Your task to perform on an android device: change notification settings in the gmail app Image 0: 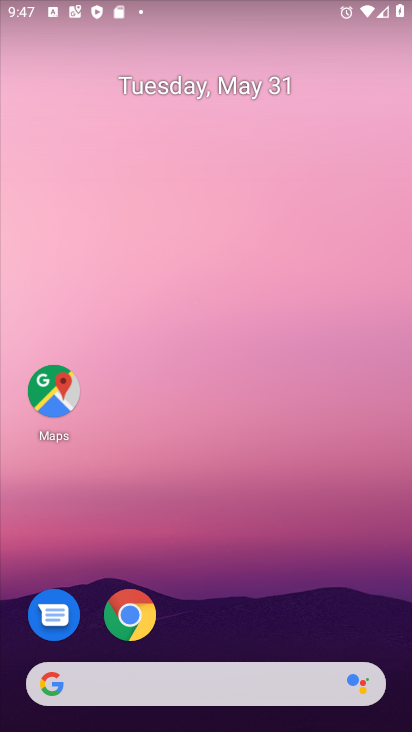
Step 0: drag from (357, 620) to (309, 62)
Your task to perform on an android device: change notification settings in the gmail app Image 1: 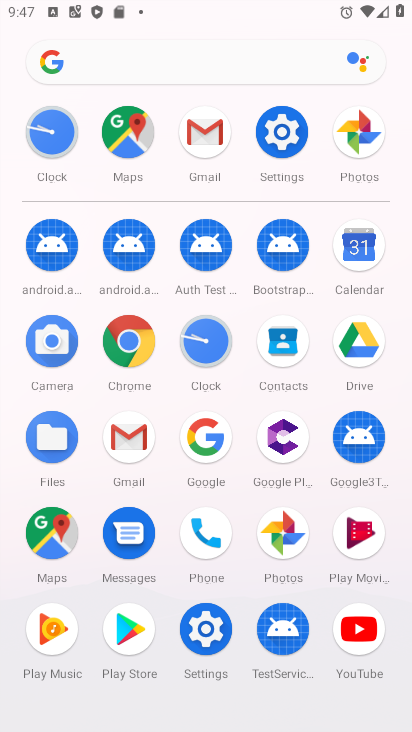
Step 1: click (126, 434)
Your task to perform on an android device: change notification settings in the gmail app Image 2: 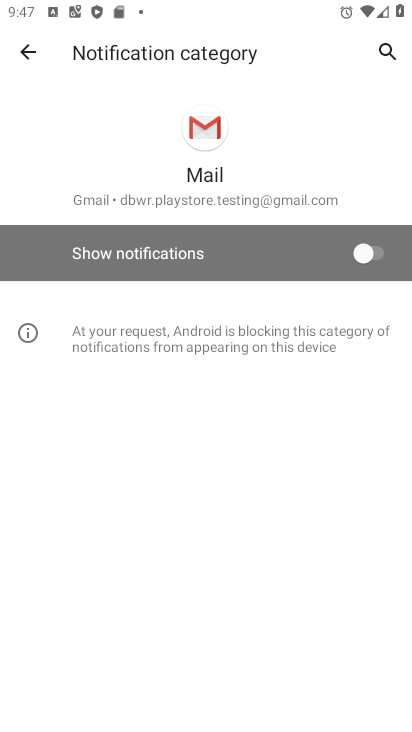
Step 2: click (377, 254)
Your task to perform on an android device: change notification settings in the gmail app Image 3: 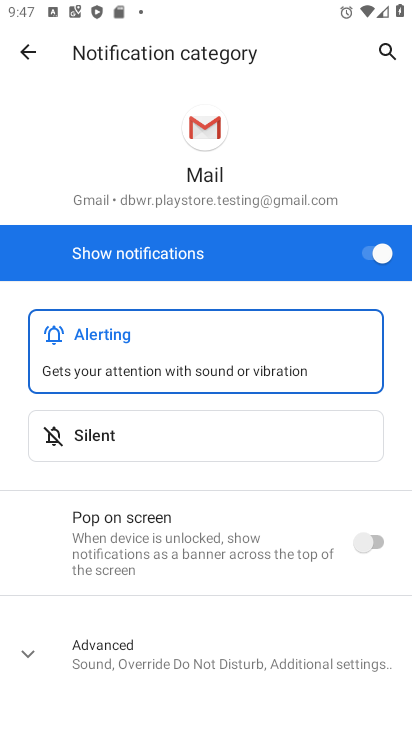
Step 3: task complete